Your task to perform on an android device: Open Chrome and go to the settings page Image 0: 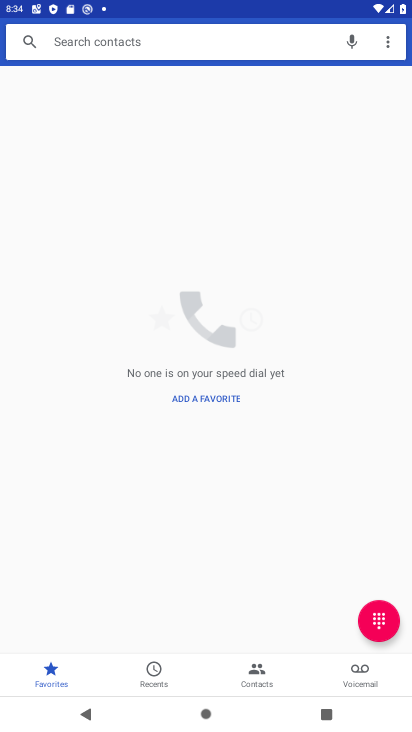
Step 0: press back button
Your task to perform on an android device: Open Chrome and go to the settings page Image 1: 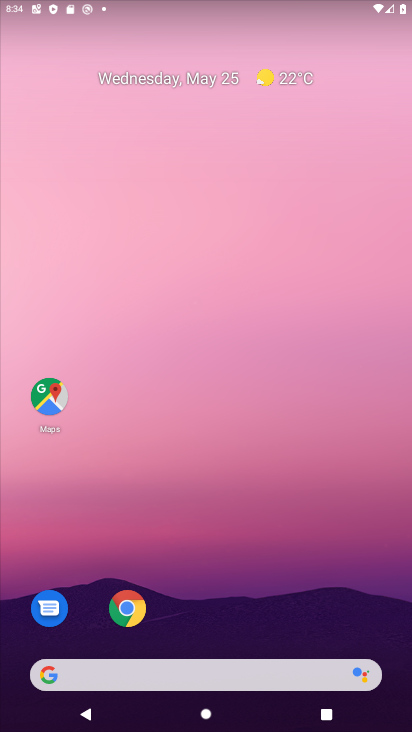
Step 1: click (125, 608)
Your task to perform on an android device: Open Chrome and go to the settings page Image 2: 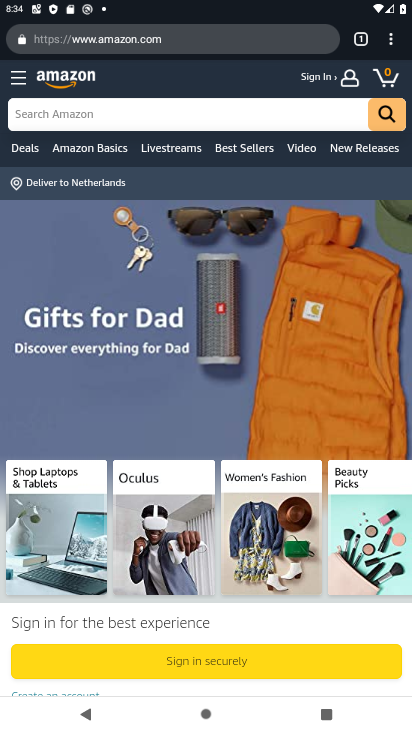
Step 2: click (393, 43)
Your task to perform on an android device: Open Chrome and go to the settings page Image 3: 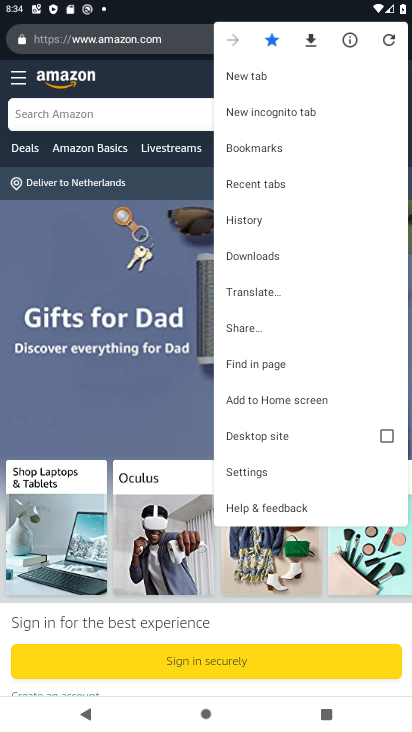
Step 3: click (253, 468)
Your task to perform on an android device: Open Chrome and go to the settings page Image 4: 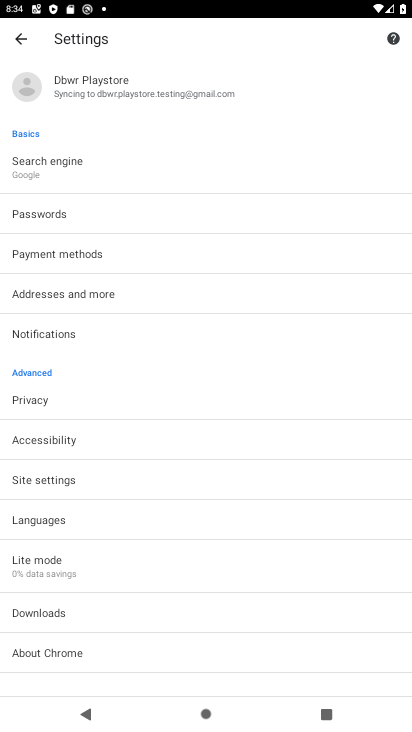
Step 4: task complete